Your task to perform on an android device: turn on the 24-hour format for clock Image 0: 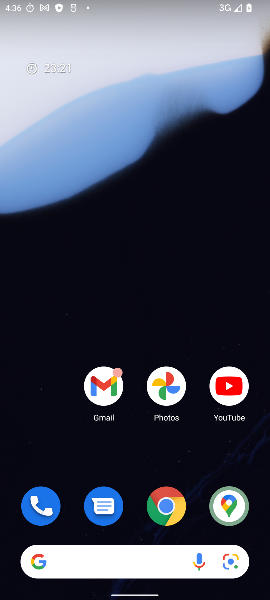
Step 0: drag from (107, 462) to (155, 35)
Your task to perform on an android device: turn on the 24-hour format for clock Image 1: 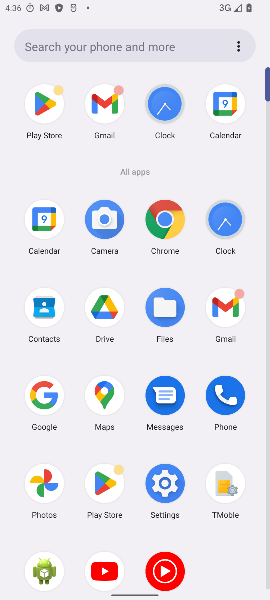
Step 1: click (220, 219)
Your task to perform on an android device: turn on the 24-hour format for clock Image 2: 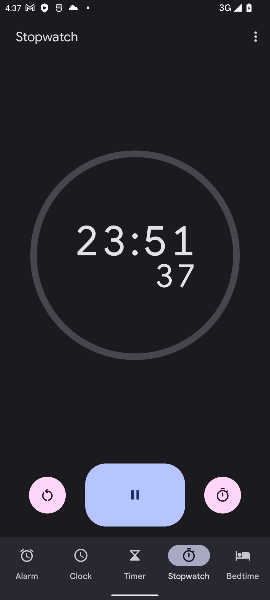
Step 2: click (256, 36)
Your task to perform on an android device: turn on the 24-hour format for clock Image 3: 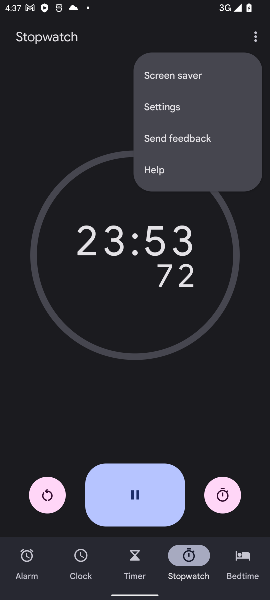
Step 3: click (150, 112)
Your task to perform on an android device: turn on the 24-hour format for clock Image 4: 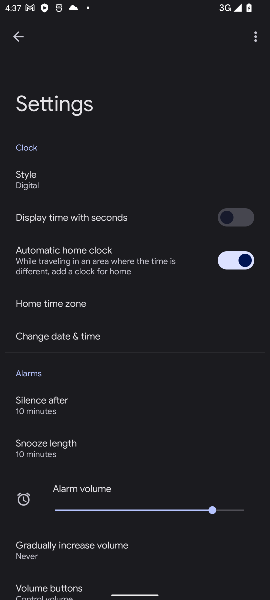
Step 4: drag from (118, 489) to (154, 147)
Your task to perform on an android device: turn on the 24-hour format for clock Image 5: 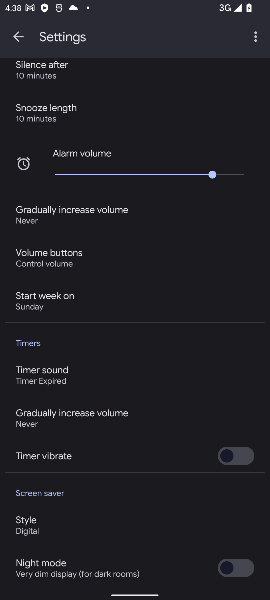
Step 5: drag from (128, 246) to (184, 465)
Your task to perform on an android device: turn on the 24-hour format for clock Image 6: 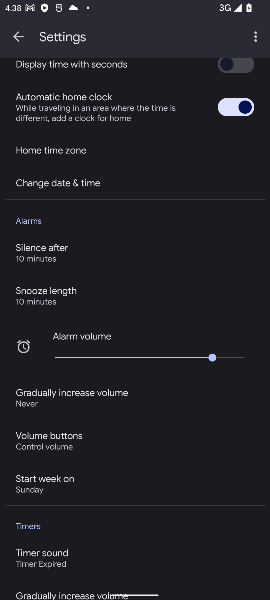
Step 6: drag from (148, 260) to (177, 499)
Your task to perform on an android device: turn on the 24-hour format for clock Image 7: 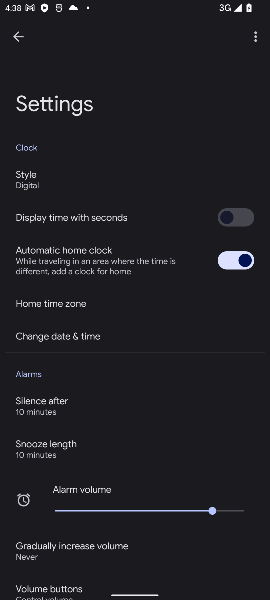
Step 7: click (75, 343)
Your task to perform on an android device: turn on the 24-hour format for clock Image 8: 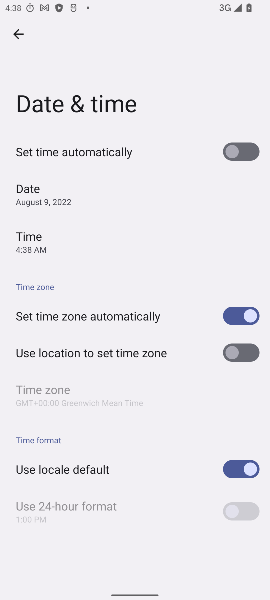
Step 8: drag from (150, 501) to (148, 244)
Your task to perform on an android device: turn on the 24-hour format for clock Image 9: 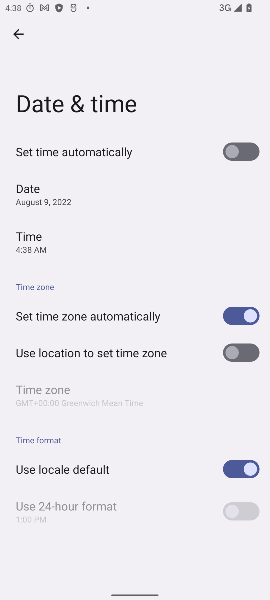
Step 9: click (246, 469)
Your task to perform on an android device: turn on the 24-hour format for clock Image 10: 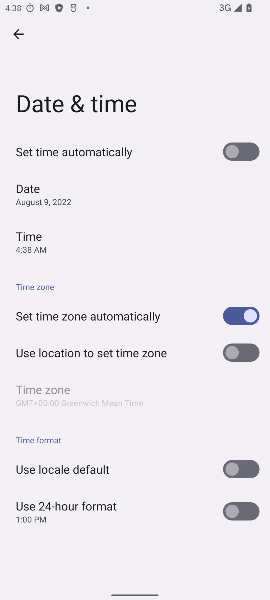
Step 10: click (237, 516)
Your task to perform on an android device: turn on the 24-hour format for clock Image 11: 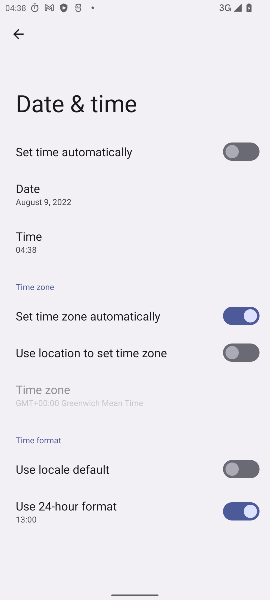
Step 11: task complete